Your task to perform on an android device: move a message to another label in the gmail app Image 0: 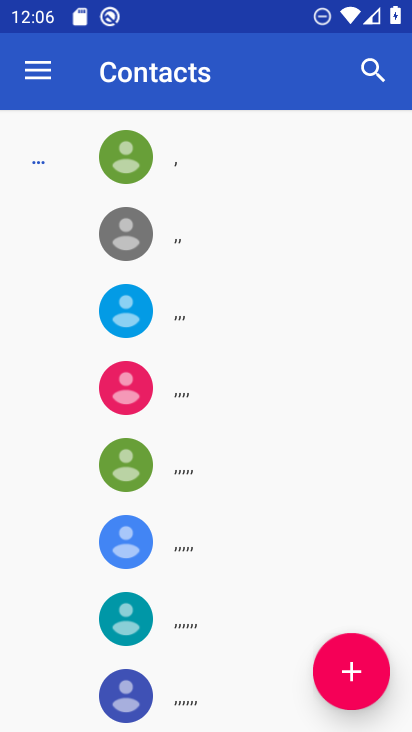
Step 0: press home button
Your task to perform on an android device: move a message to another label in the gmail app Image 1: 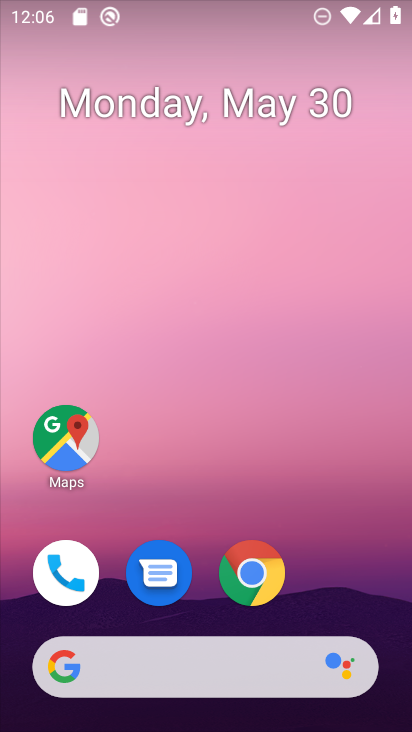
Step 1: drag from (299, 428) to (292, 255)
Your task to perform on an android device: move a message to another label in the gmail app Image 2: 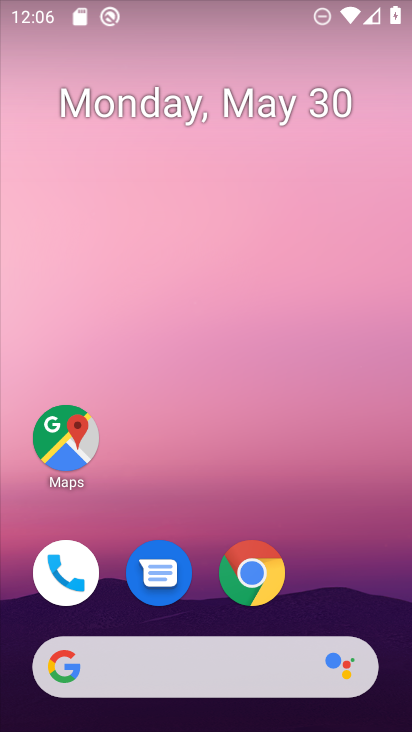
Step 2: drag from (335, 619) to (298, 211)
Your task to perform on an android device: move a message to another label in the gmail app Image 3: 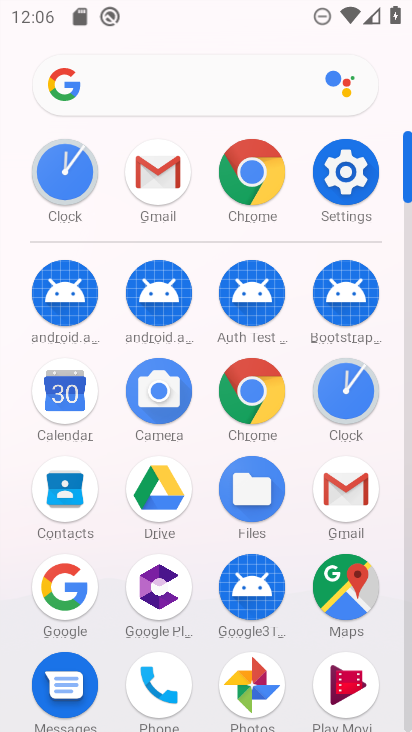
Step 3: click (151, 186)
Your task to perform on an android device: move a message to another label in the gmail app Image 4: 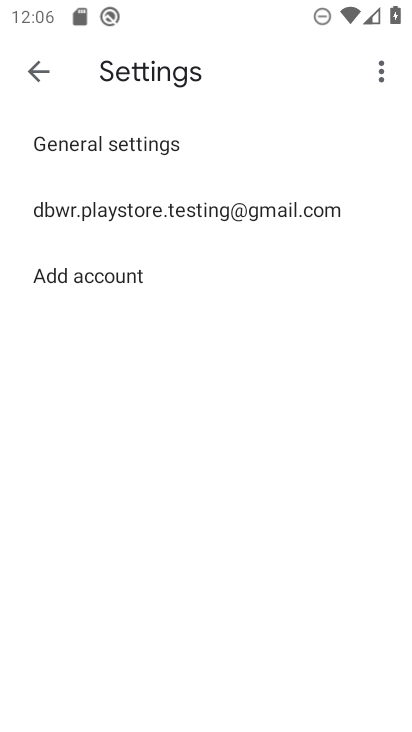
Step 4: click (32, 75)
Your task to perform on an android device: move a message to another label in the gmail app Image 5: 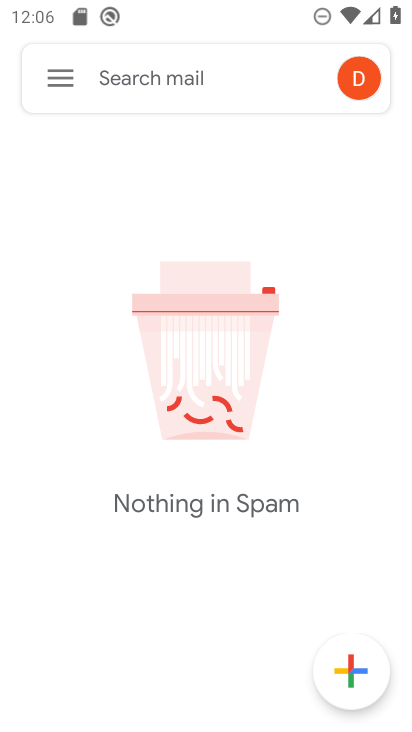
Step 5: click (48, 75)
Your task to perform on an android device: move a message to another label in the gmail app Image 6: 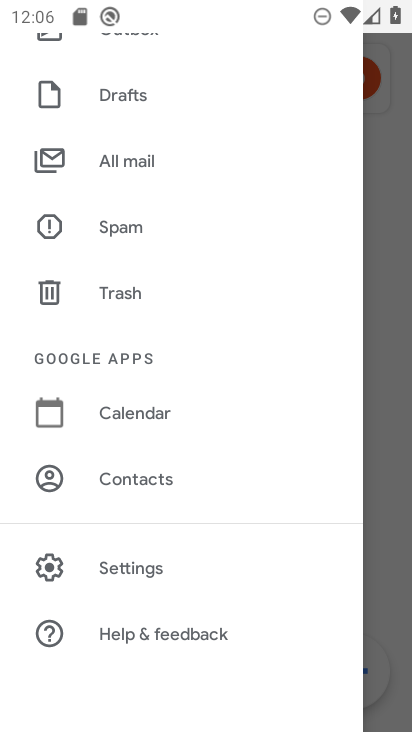
Step 6: click (128, 173)
Your task to perform on an android device: move a message to another label in the gmail app Image 7: 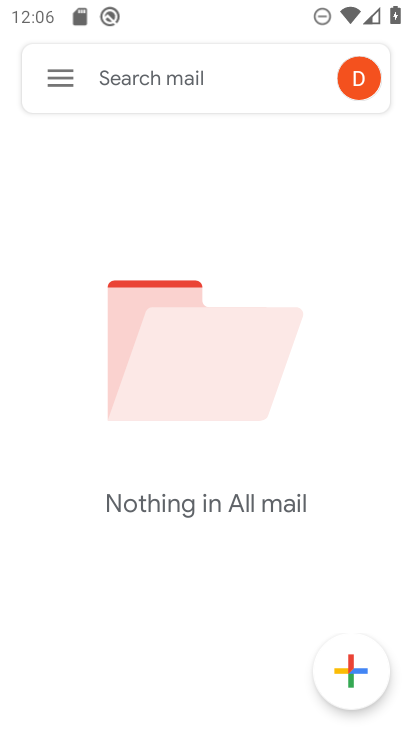
Step 7: task complete